Your task to perform on an android device: open app "AliExpress" (install if not already installed), go to login, and select forgot password Image 0: 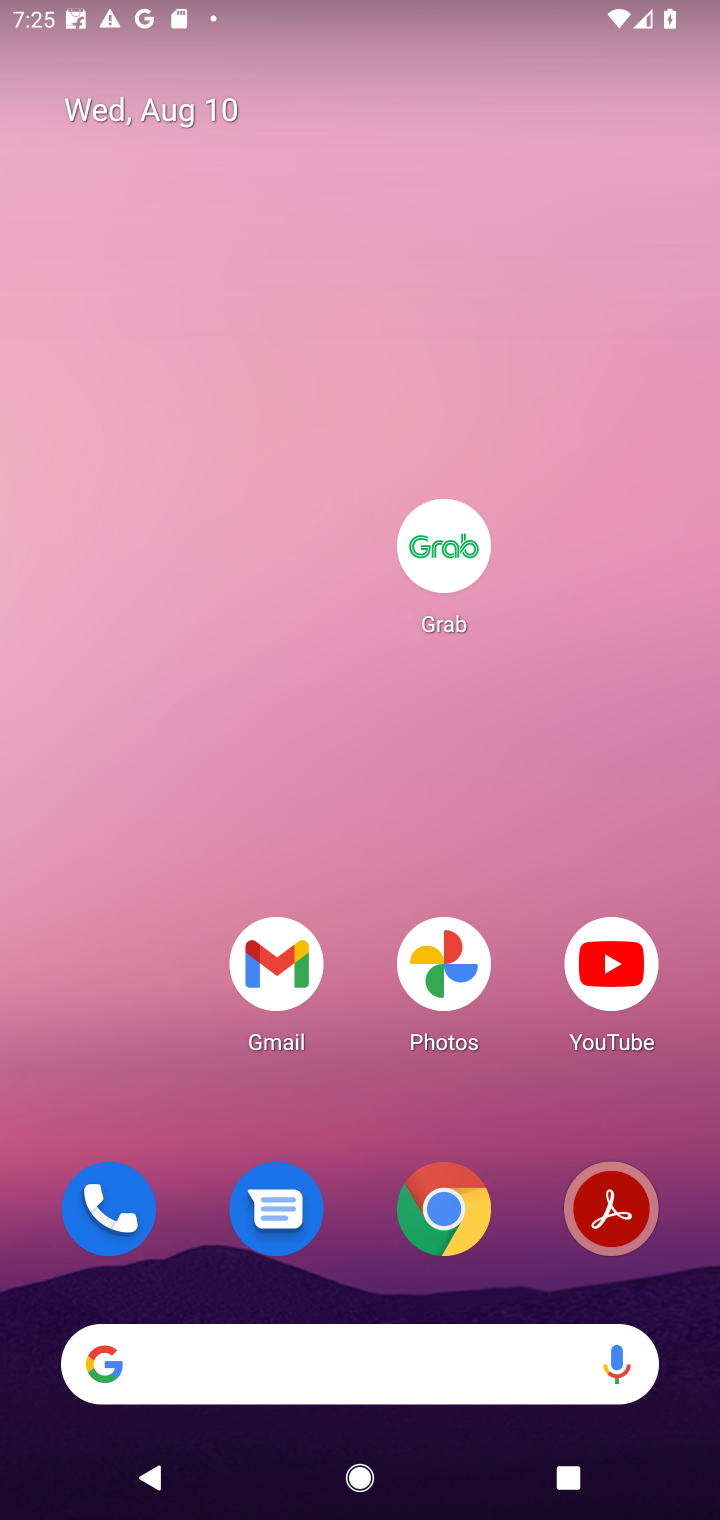
Step 0: drag from (335, 1299) to (309, 606)
Your task to perform on an android device: open app "AliExpress" (install if not already installed), go to login, and select forgot password Image 1: 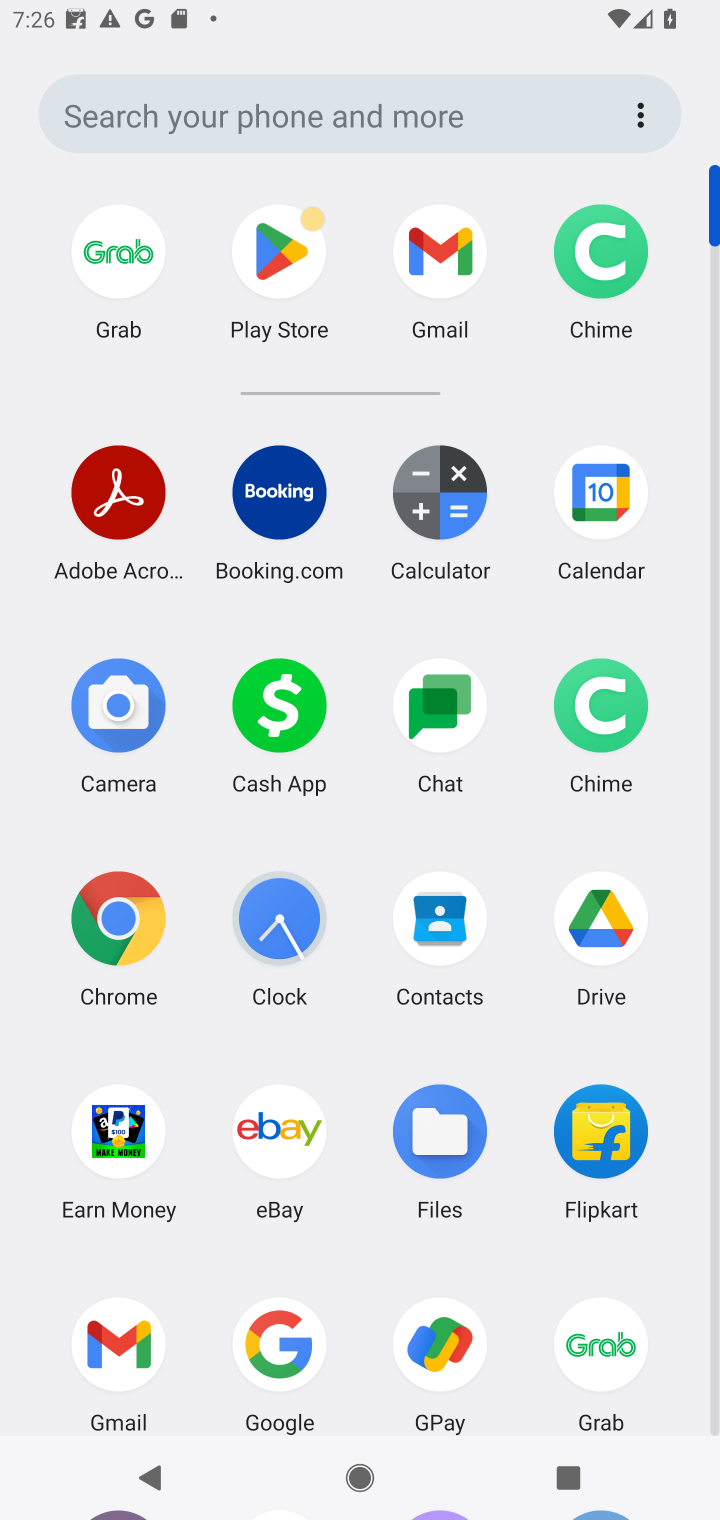
Step 1: click (303, 284)
Your task to perform on an android device: open app "AliExpress" (install if not already installed), go to login, and select forgot password Image 2: 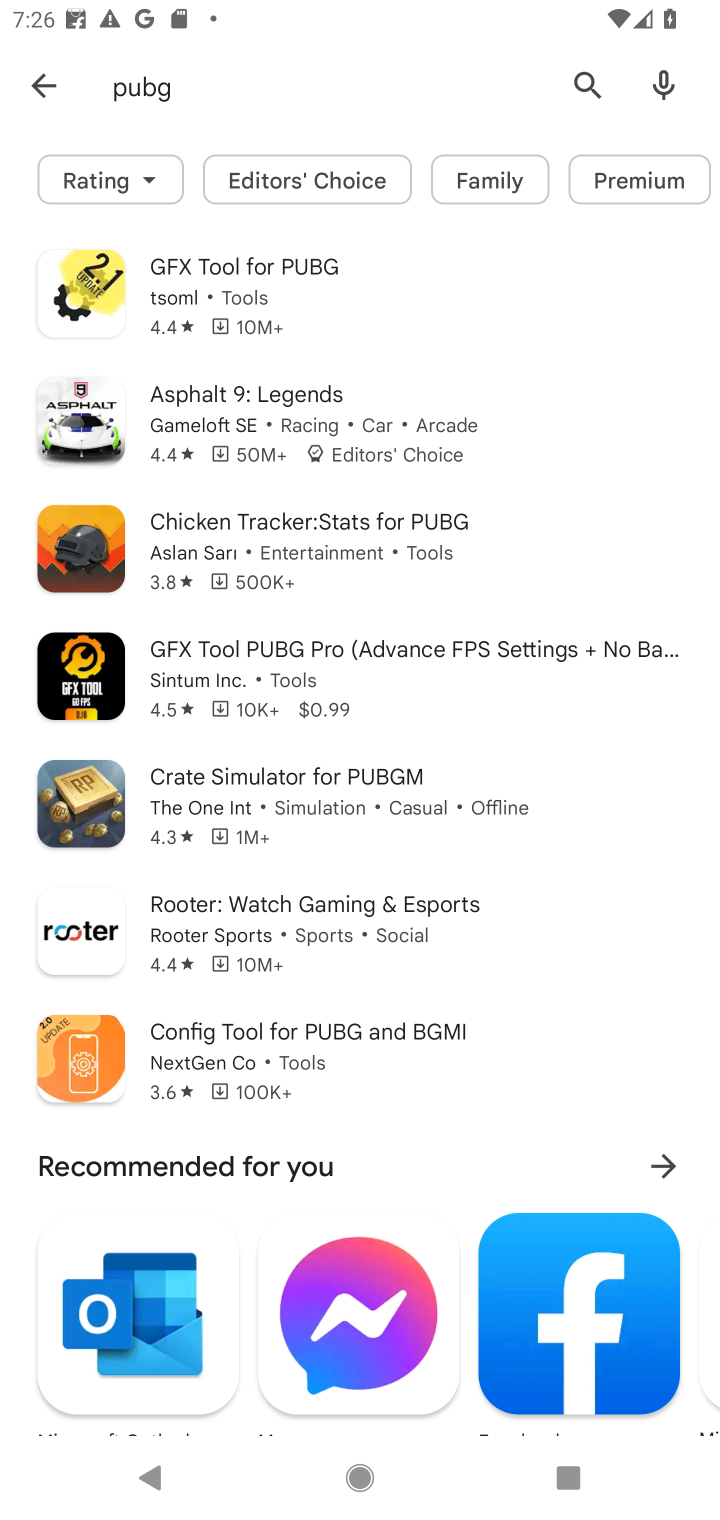
Step 2: click (301, 106)
Your task to perform on an android device: open app "AliExpress" (install if not already installed), go to login, and select forgot password Image 3: 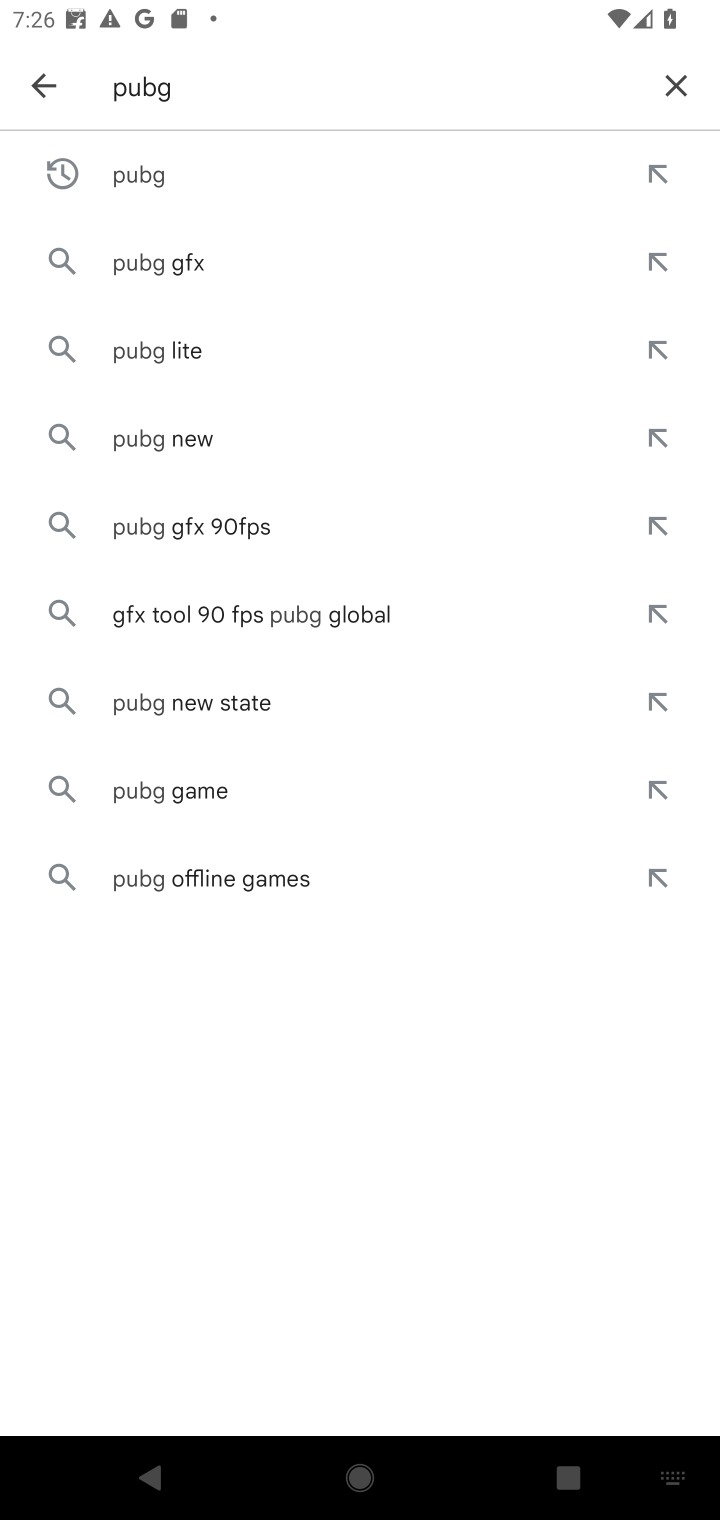
Step 3: click (656, 90)
Your task to perform on an android device: open app "AliExpress" (install if not already installed), go to login, and select forgot password Image 4: 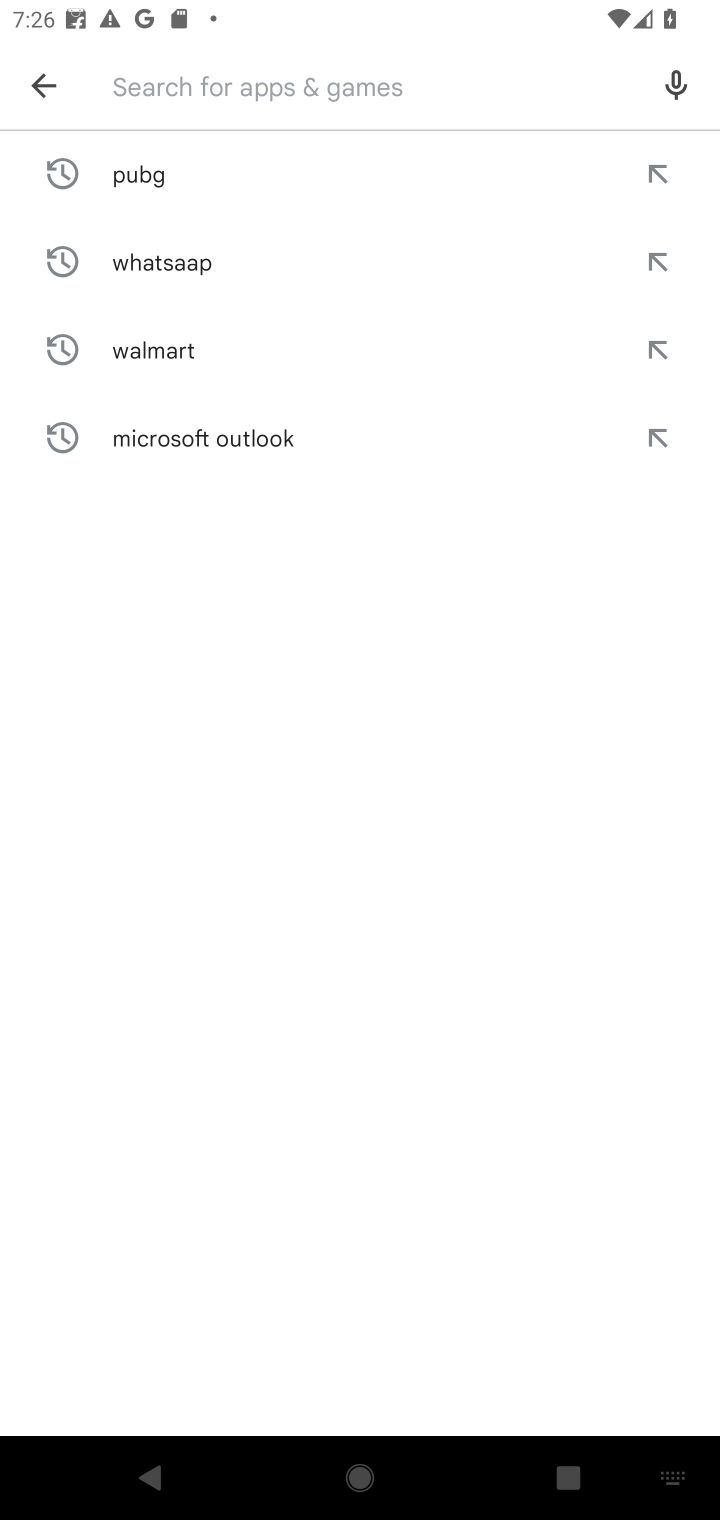
Step 4: type "ali express"
Your task to perform on an android device: open app "AliExpress" (install if not already installed), go to login, and select forgot password Image 5: 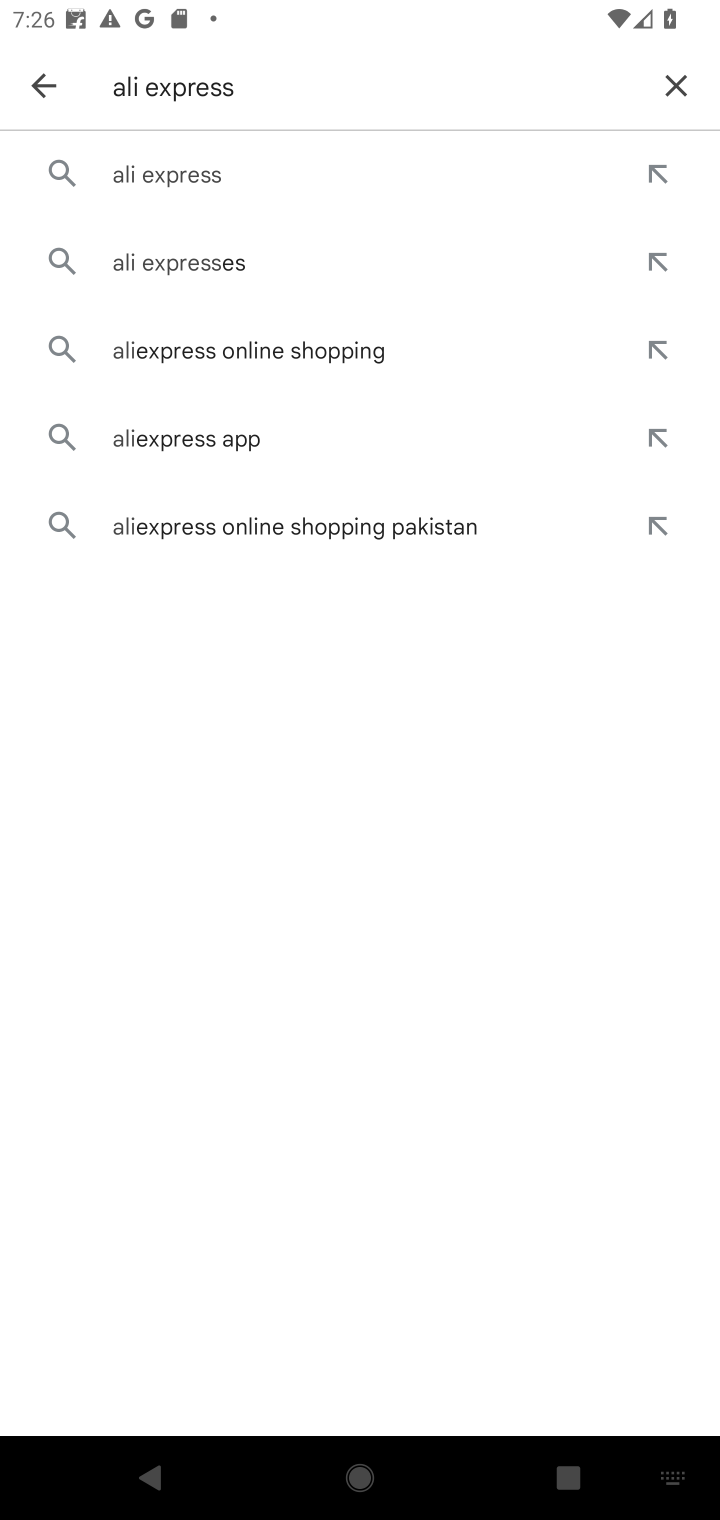
Step 5: click (337, 146)
Your task to perform on an android device: open app "AliExpress" (install if not already installed), go to login, and select forgot password Image 6: 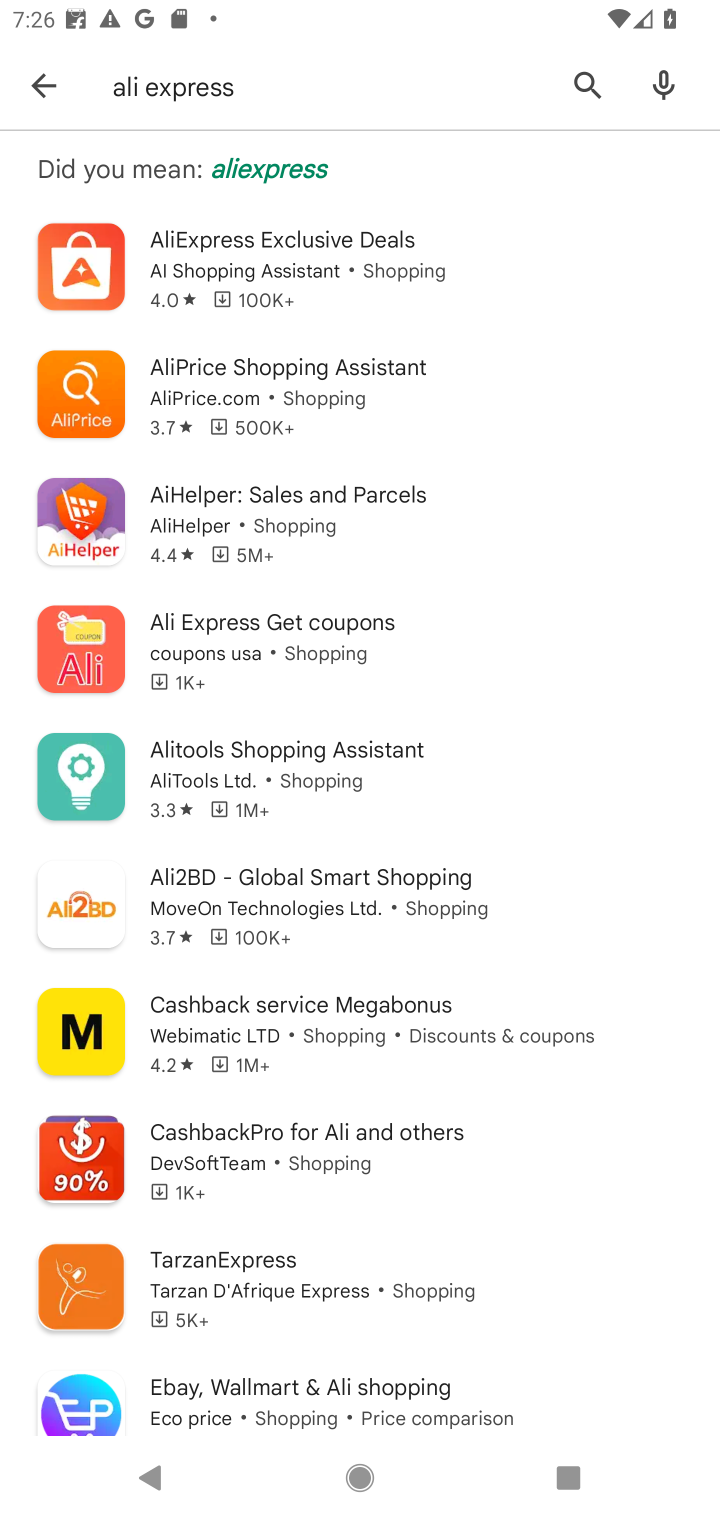
Step 6: click (454, 289)
Your task to perform on an android device: open app "AliExpress" (install if not already installed), go to login, and select forgot password Image 7: 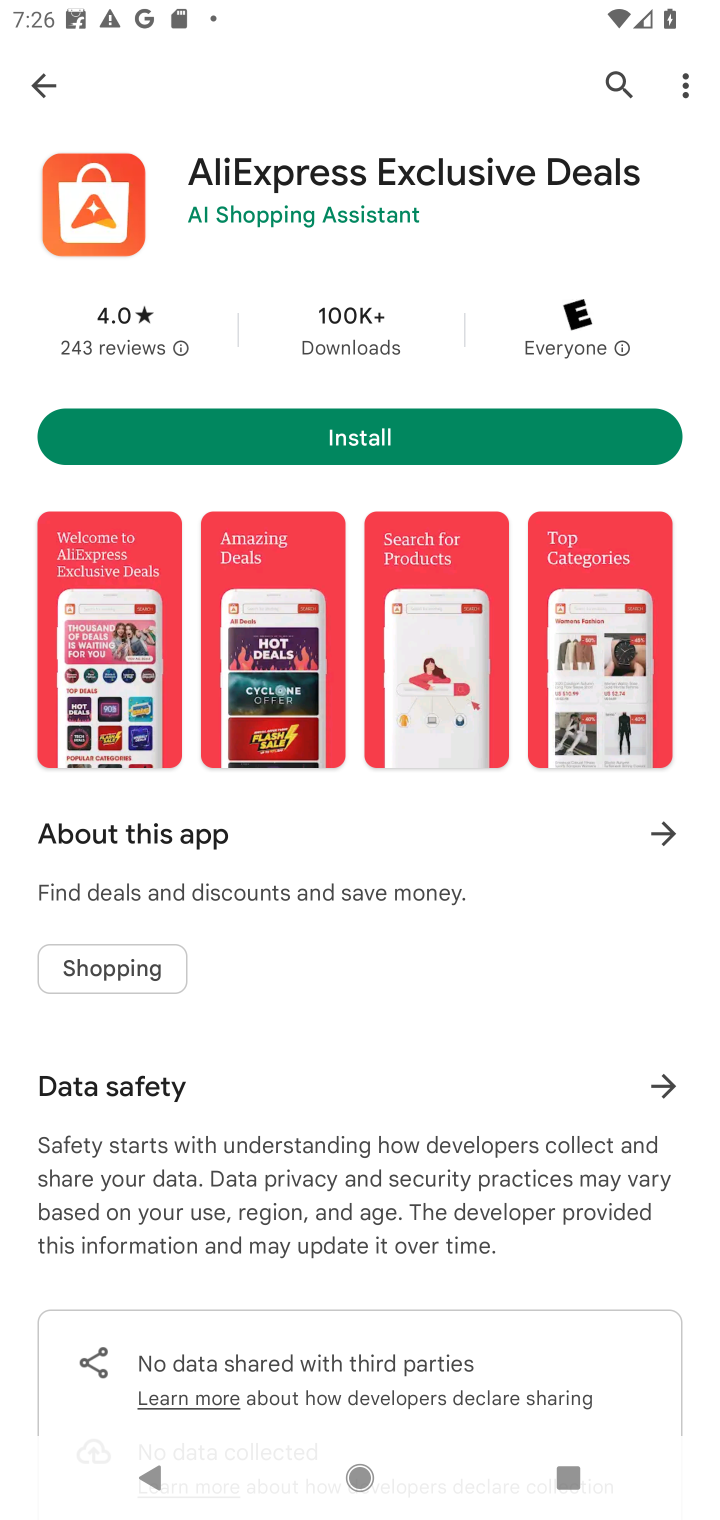
Step 7: click (448, 425)
Your task to perform on an android device: open app "AliExpress" (install if not already installed), go to login, and select forgot password Image 8: 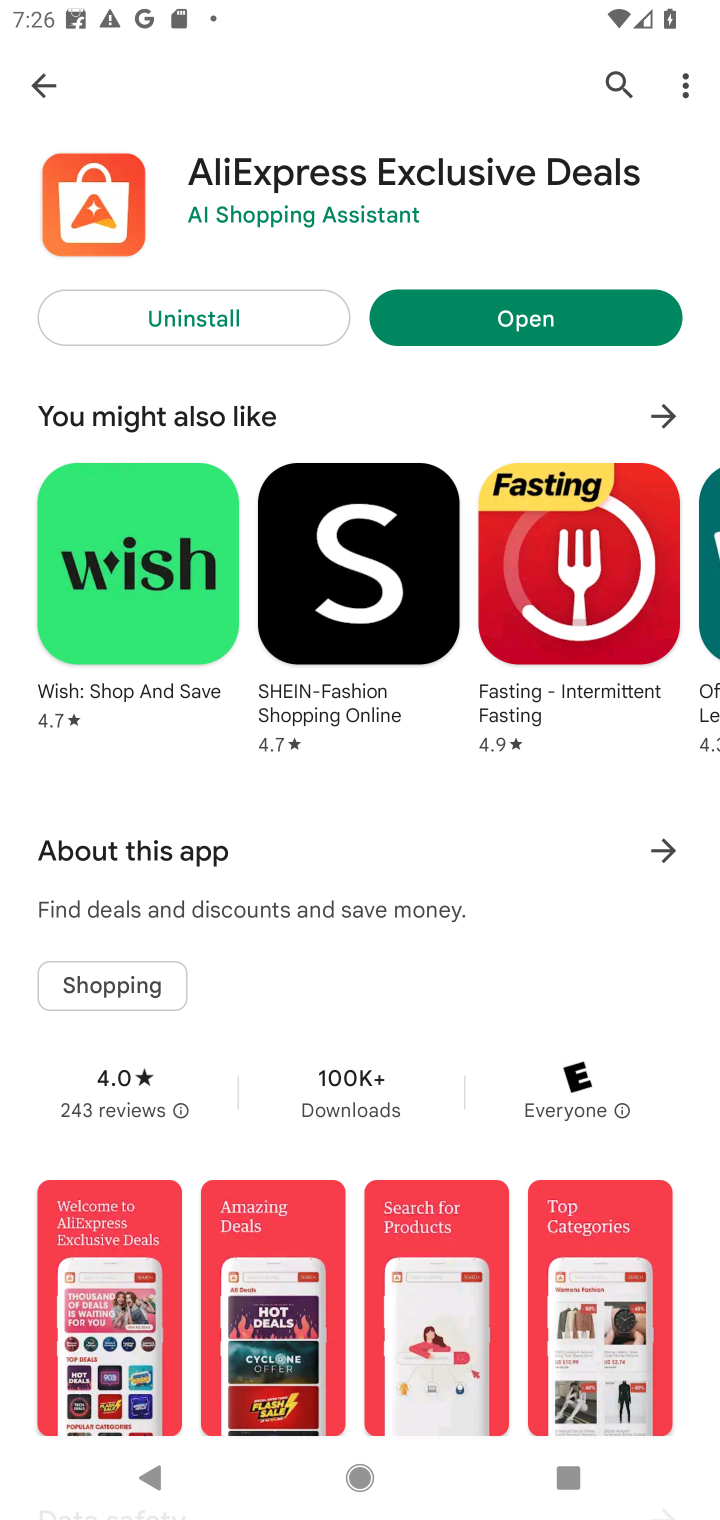
Step 8: click (508, 341)
Your task to perform on an android device: open app "AliExpress" (install if not already installed), go to login, and select forgot password Image 9: 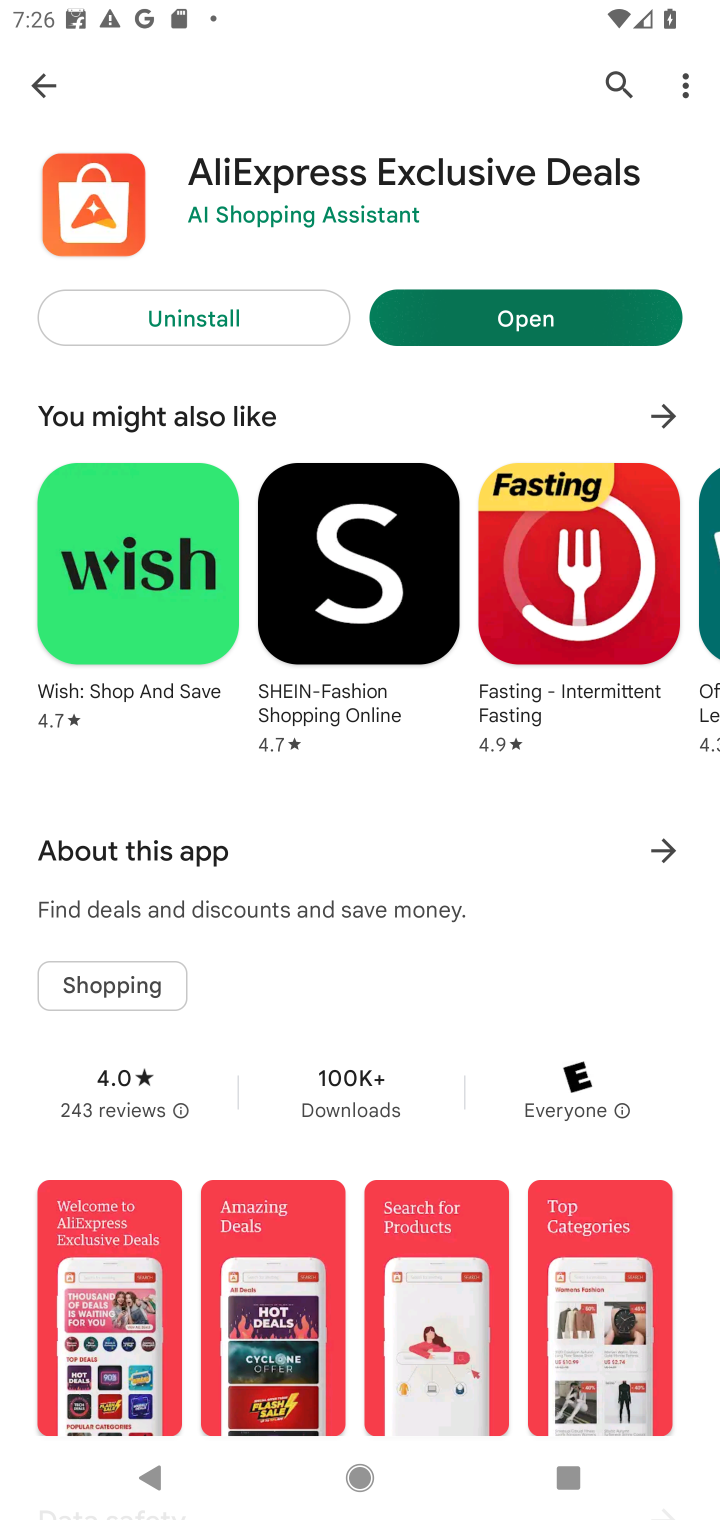
Step 9: task complete